Your task to perform on an android device: read, delete, or share a saved page in the chrome app Image 0: 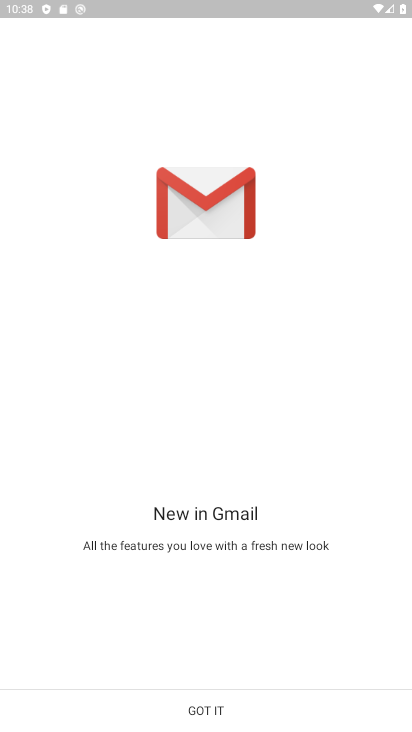
Step 0: press home button
Your task to perform on an android device: read, delete, or share a saved page in the chrome app Image 1: 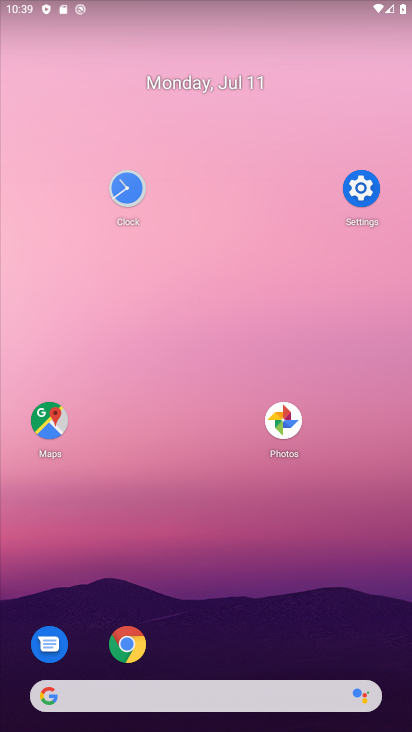
Step 1: click (138, 644)
Your task to perform on an android device: read, delete, or share a saved page in the chrome app Image 2: 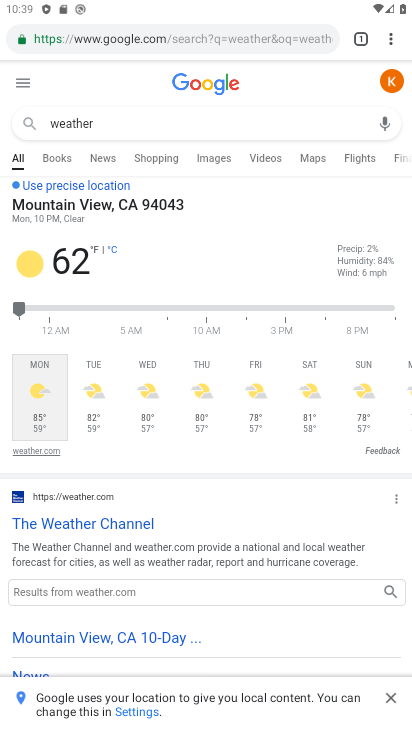
Step 2: click (390, 39)
Your task to perform on an android device: read, delete, or share a saved page in the chrome app Image 3: 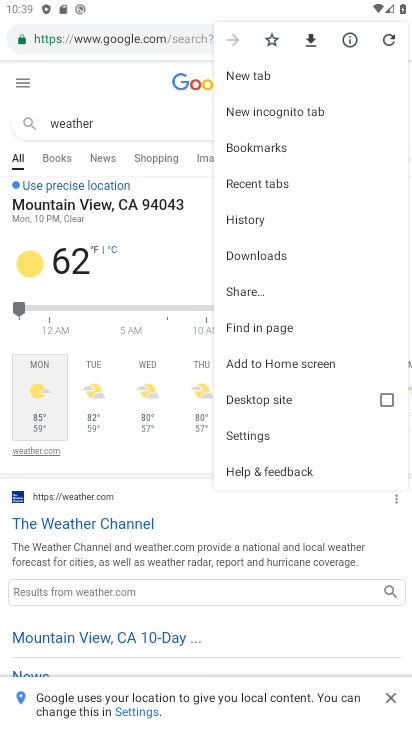
Step 3: click (280, 261)
Your task to perform on an android device: read, delete, or share a saved page in the chrome app Image 4: 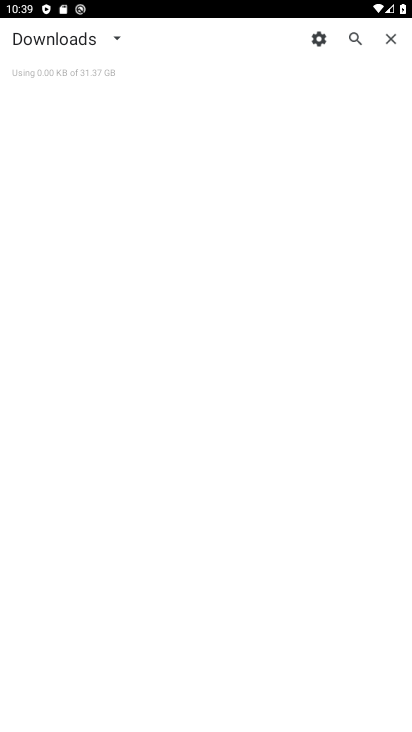
Step 4: task complete